Your task to perform on an android device: turn off notifications in google photos Image 0: 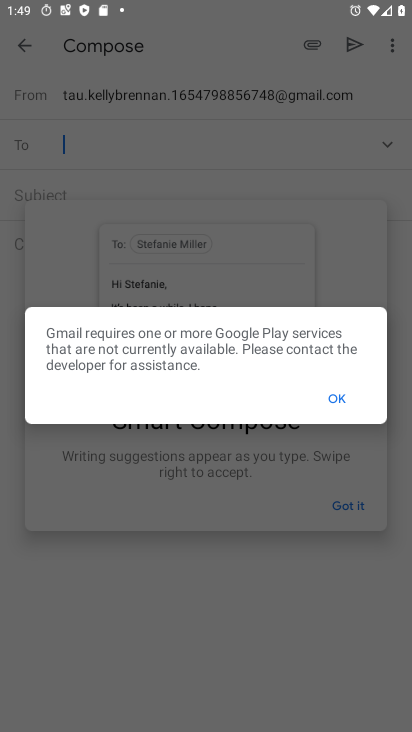
Step 0: press home button
Your task to perform on an android device: turn off notifications in google photos Image 1: 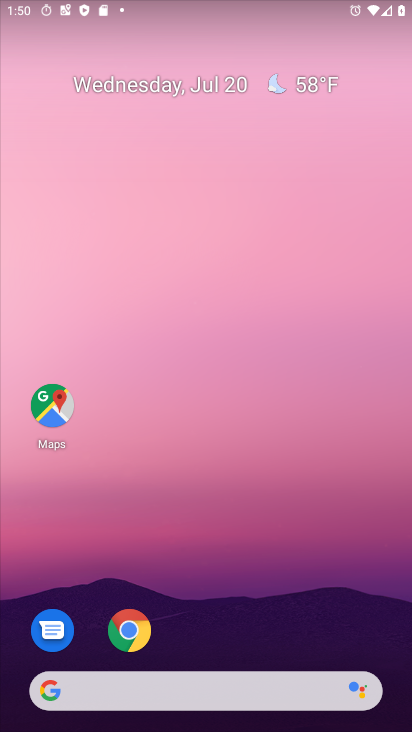
Step 1: drag from (270, 521) to (333, 284)
Your task to perform on an android device: turn off notifications in google photos Image 2: 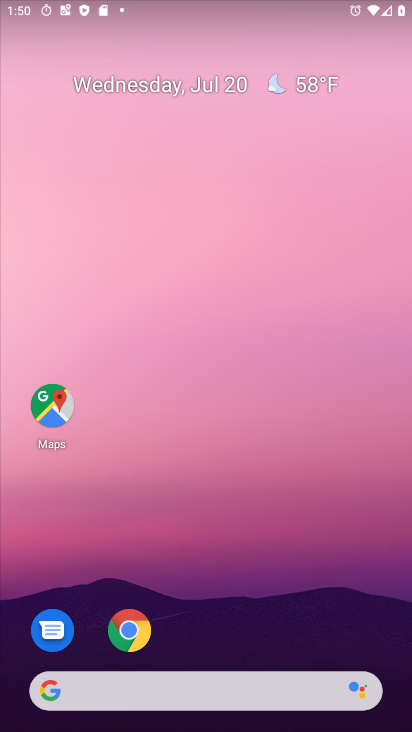
Step 2: drag from (197, 692) to (331, 102)
Your task to perform on an android device: turn off notifications in google photos Image 3: 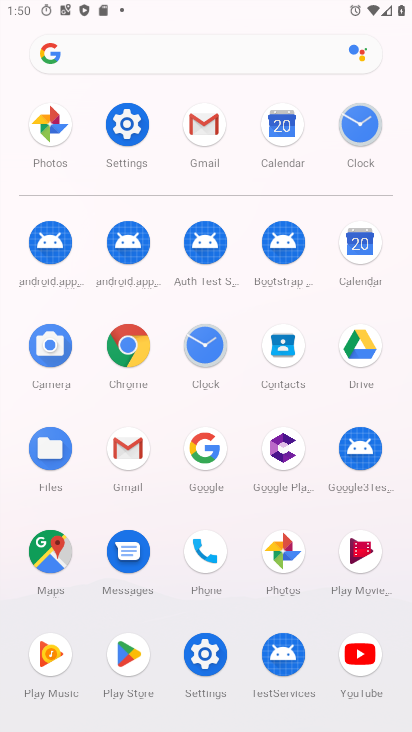
Step 3: click (281, 552)
Your task to perform on an android device: turn off notifications in google photos Image 4: 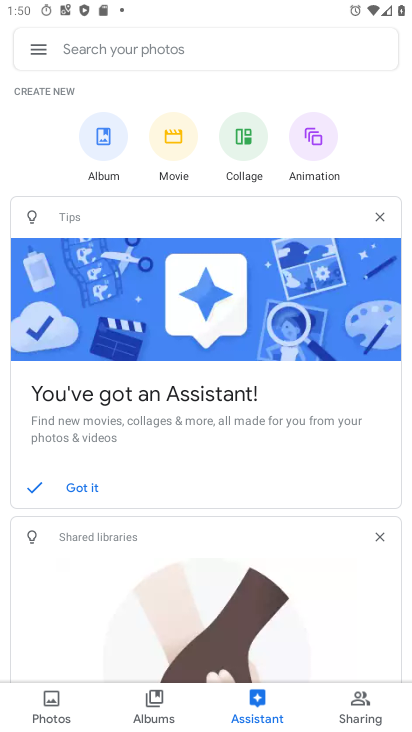
Step 4: click (35, 46)
Your task to perform on an android device: turn off notifications in google photos Image 5: 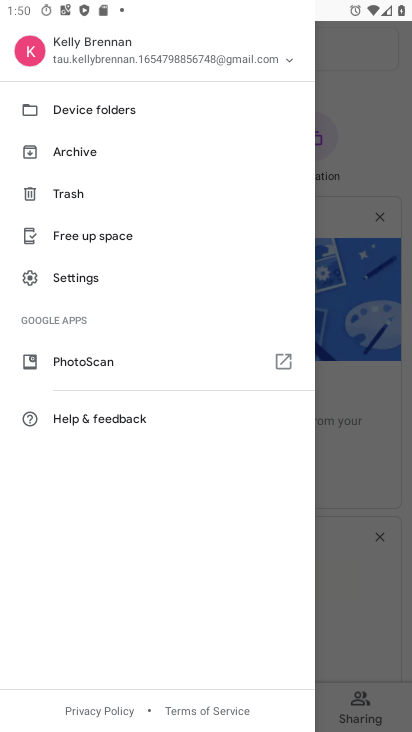
Step 5: click (65, 285)
Your task to perform on an android device: turn off notifications in google photos Image 6: 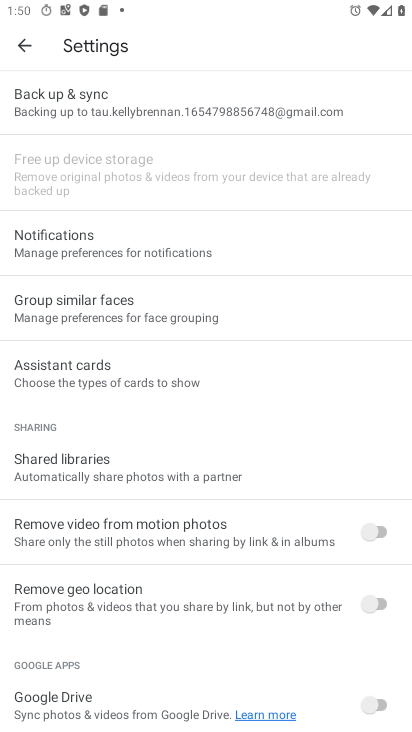
Step 6: click (100, 234)
Your task to perform on an android device: turn off notifications in google photos Image 7: 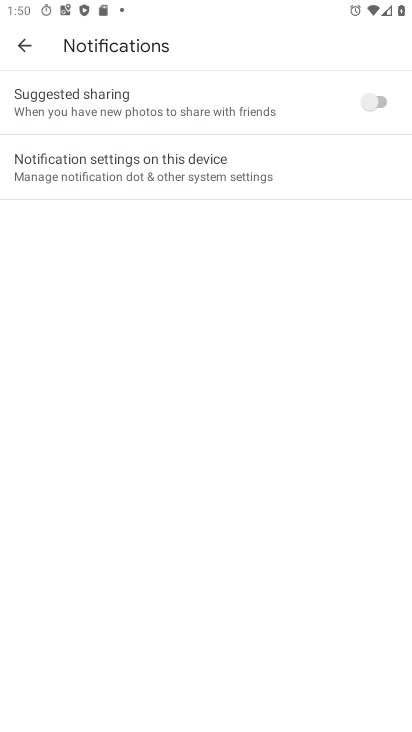
Step 7: click (172, 156)
Your task to perform on an android device: turn off notifications in google photos Image 8: 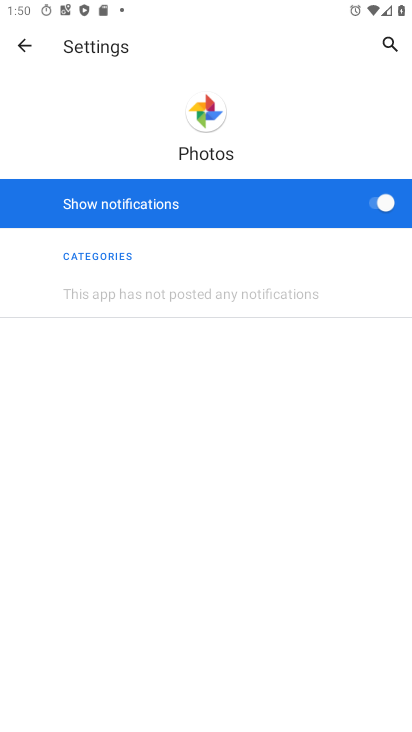
Step 8: click (378, 203)
Your task to perform on an android device: turn off notifications in google photos Image 9: 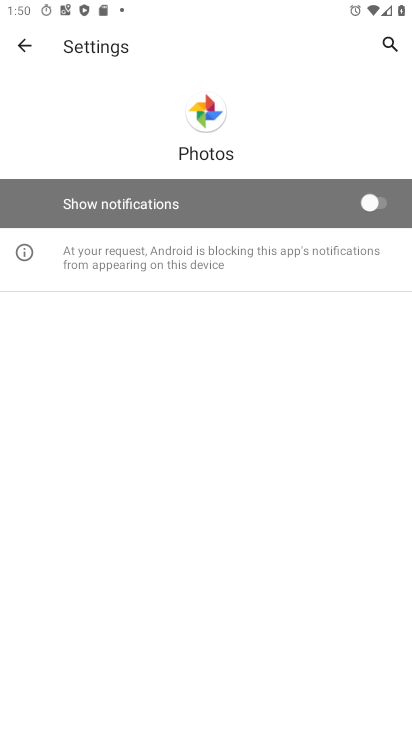
Step 9: task complete